Your task to perform on an android device: Open the calendar and show me this week's events Image 0: 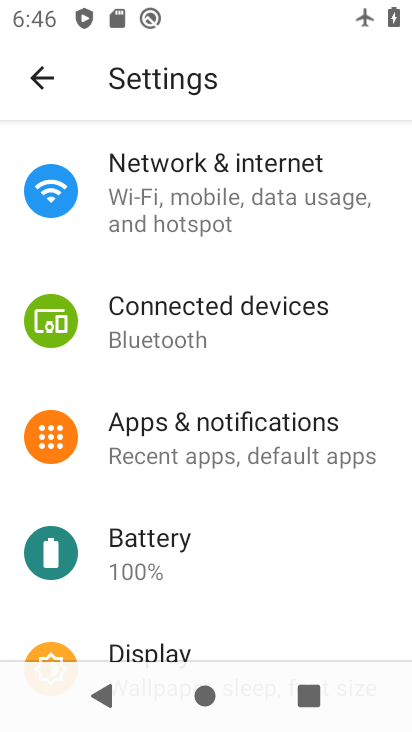
Step 0: press home button
Your task to perform on an android device: Open the calendar and show me this week's events Image 1: 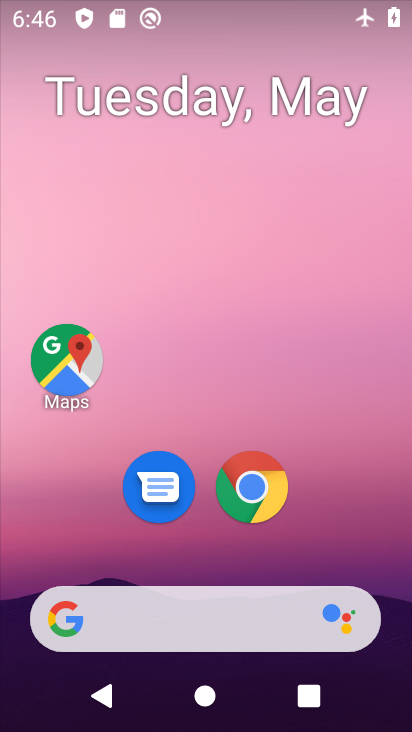
Step 1: drag from (344, 496) to (267, 3)
Your task to perform on an android device: Open the calendar and show me this week's events Image 2: 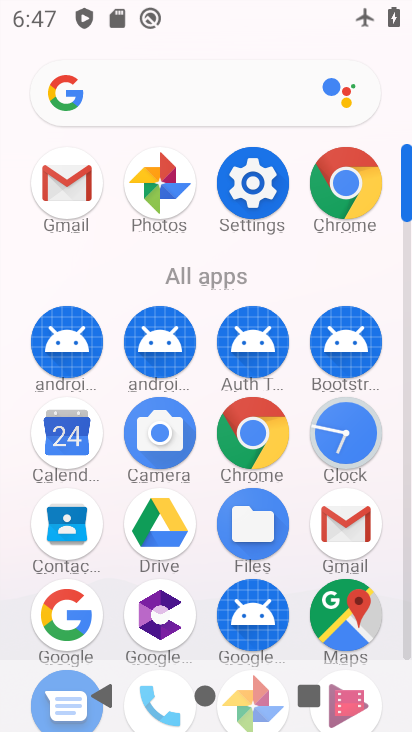
Step 2: click (54, 440)
Your task to perform on an android device: Open the calendar and show me this week's events Image 3: 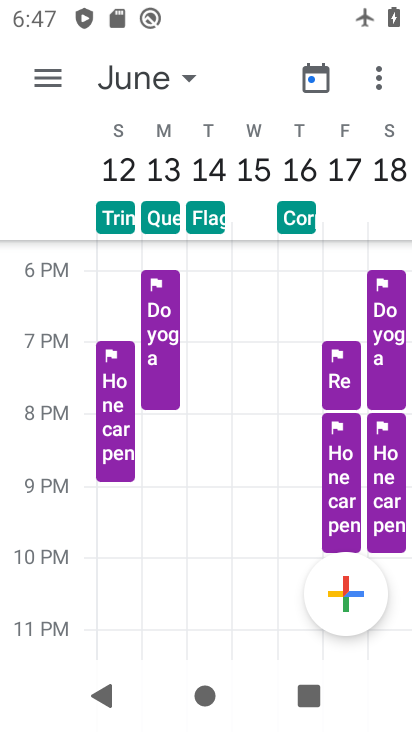
Step 3: click (187, 79)
Your task to perform on an android device: Open the calendar and show me this week's events Image 4: 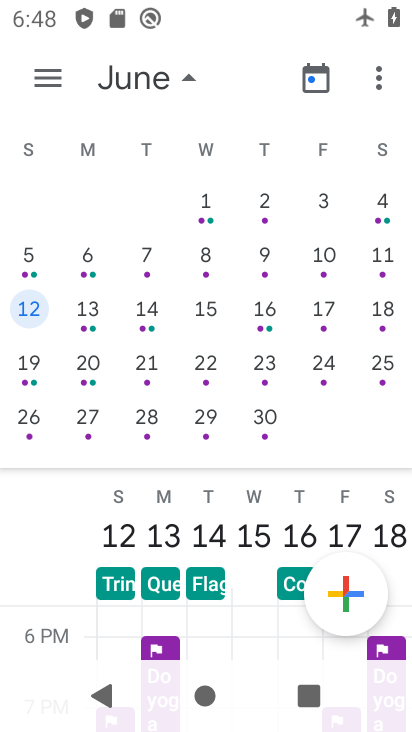
Step 4: drag from (34, 339) to (369, 371)
Your task to perform on an android device: Open the calendar and show me this week's events Image 5: 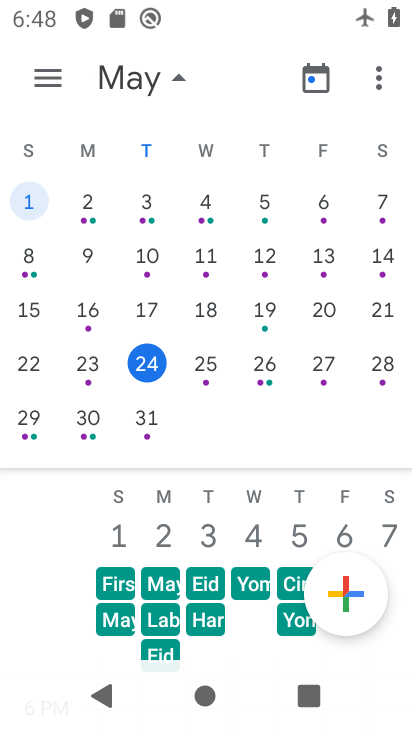
Step 5: click (259, 365)
Your task to perform on an android device: Open the calendar and show me this week's events Image 6: 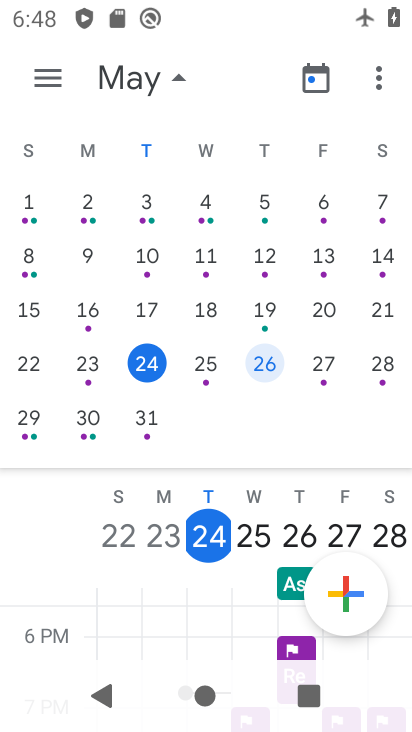
Step 6: task complete